Your task to perform on an android device: Open network settings Image 0: 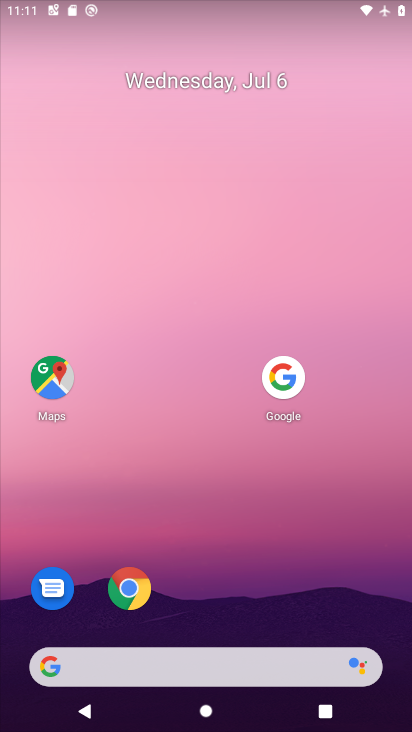
Step 0: click (284, 161)
Your task to perform on an android device: Open network settings Image 1: 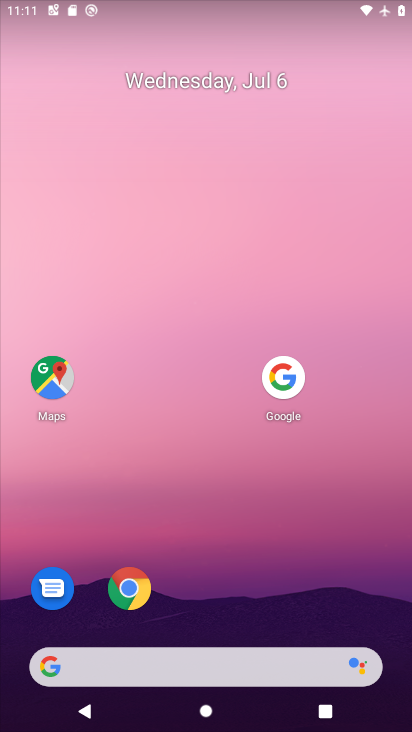
Step 1: drag from (170, 671) to (280, 115)
Your task to perform on an android device: Open network settings Image 2: 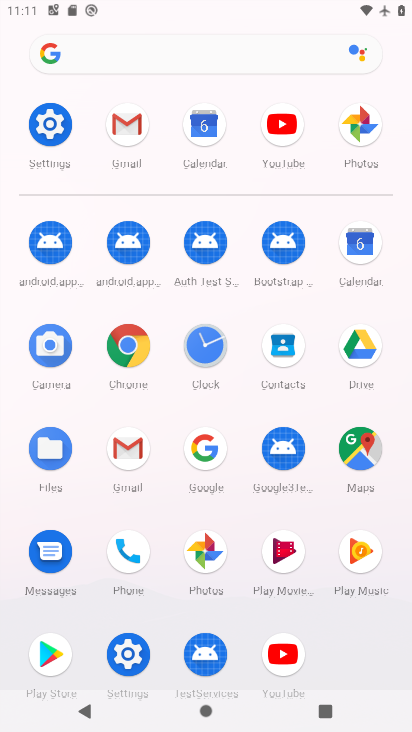
Step 2: click (46, 129)
Your task to perform on an android device: Open network settings Image 3: 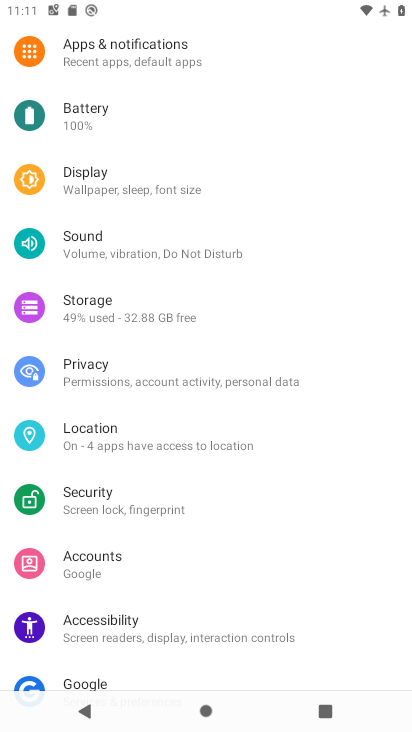
Step 3: drag from (202, 114) to (188, 496)
Your task to perform on an android device: Open network settings Image 4: 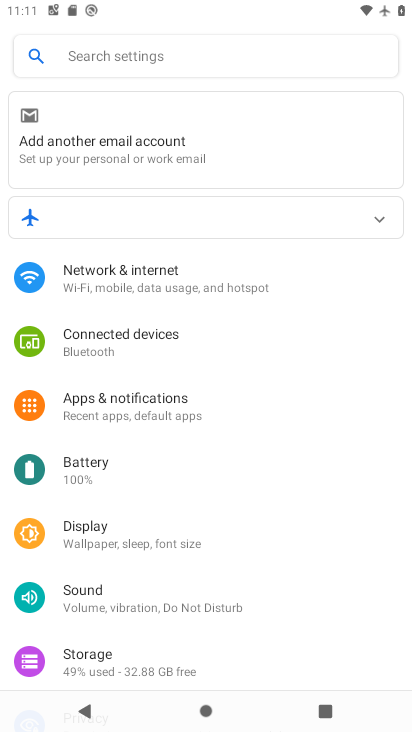
Step 4: click (124, 271)
Your task to perform on an android device: Open network settings Image 5: 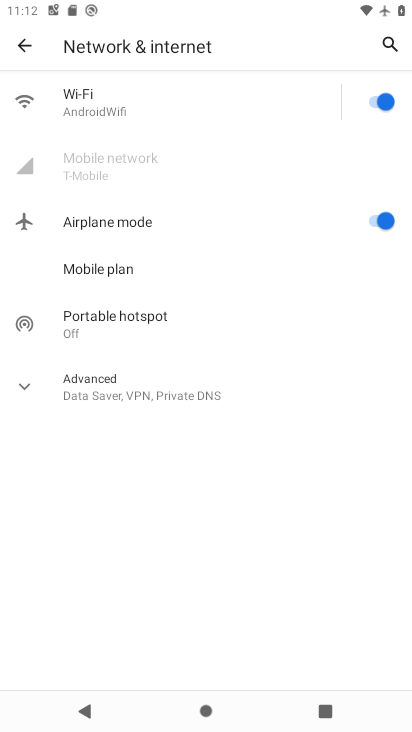
Step 5: task complete